Your task to perform on an android device: Open calendar and show me the fourth week of next month Image 0: 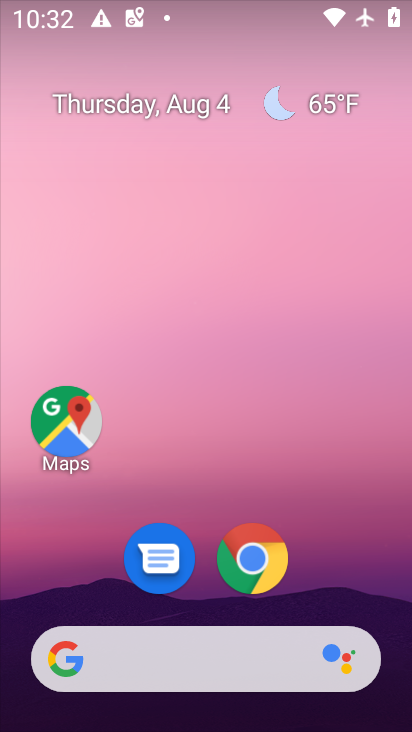
Step 0: drag from (359, 569) to (313, 144)
Your task to perform on an android device: Open calendar and show me the fourth week of next month Image 1: 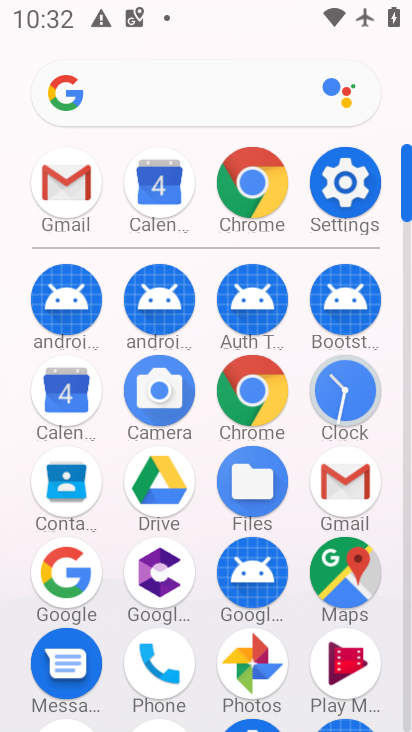
Step 1: click (77, 393)
Your task to perform on an android device: Open calendar and show me the fourth week of next month Image 2: 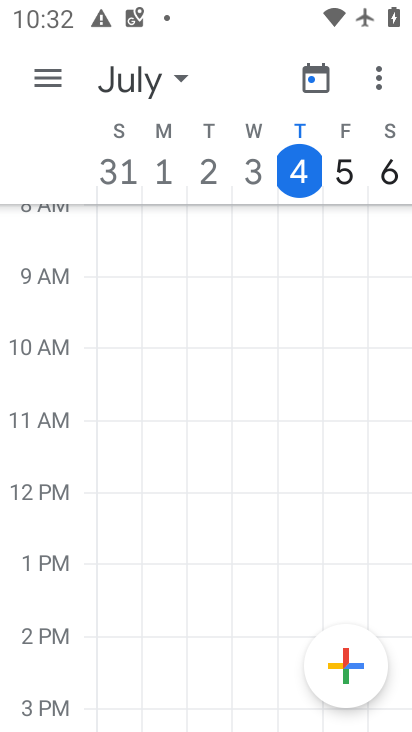
Step 2: click (152, 79)
Your task to perform on an android device: Open calendar and show me the fourth week of next month Image 3: 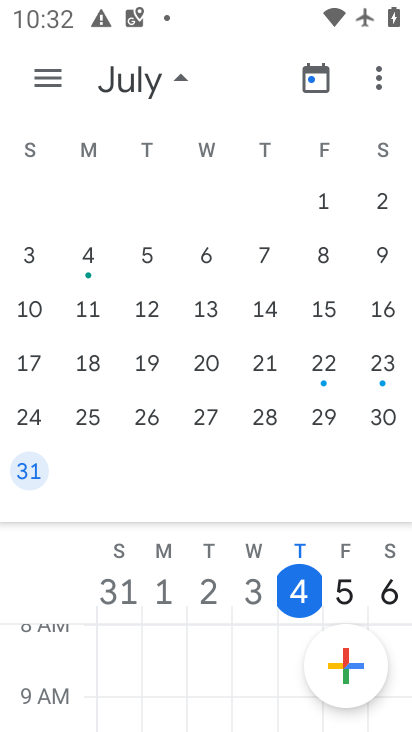
Step 3: drag from (384, 330) to (19, 320)
Your task to perform on an android device: Open calendar and show me the fourth week of next month Image 4: 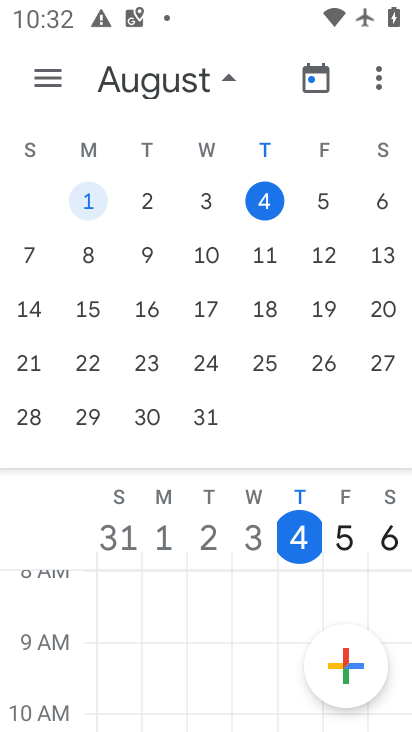
Step 4: drag from (381, 287) to (23, 305)
Your task to perform on an android device: Open calendar and show me the fourth week of next month Image 5: 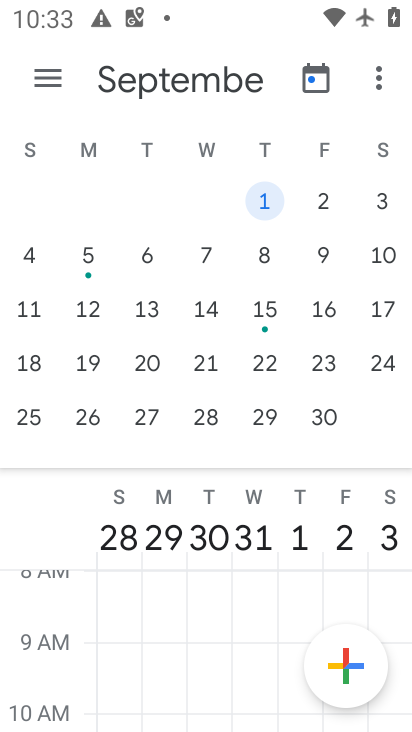
Step 5: drag from (266, 624) to (355, 250)
Your task to perform on an android device: Open calendar and show me the fourth week of next month Image 6: 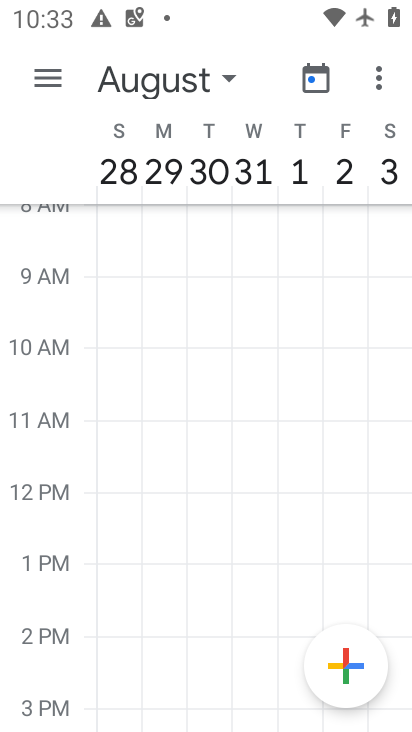
Step 6: click (210, 73)
Your task to perform on an android device: Open calendar and show me the fourth week of next month Image 7: 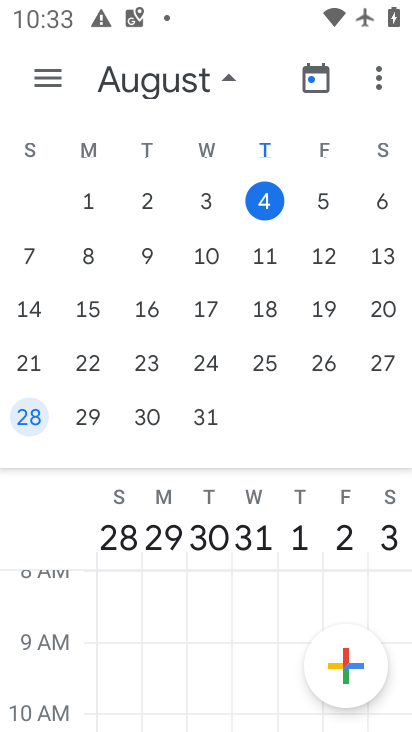
Step 7: drag from (382, 345) to (37, 315)
Your task to perform on an android device: Open calendar and show me the fourth week of next month Image 8: 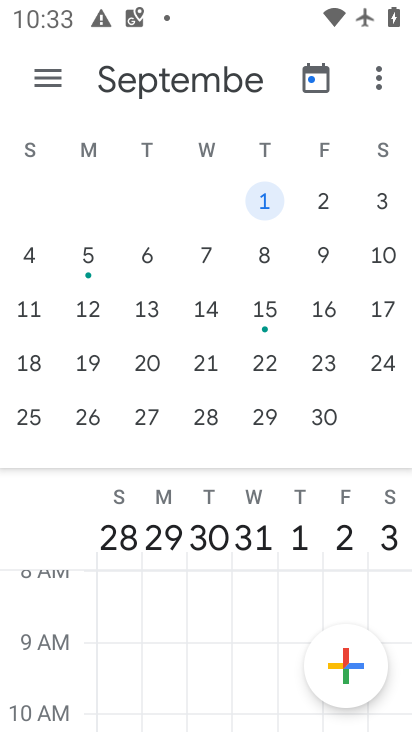
Step 8: click (148, 413)
Your task to perform on an android device: Open calendar and show me the fourth week of next month Image 9: 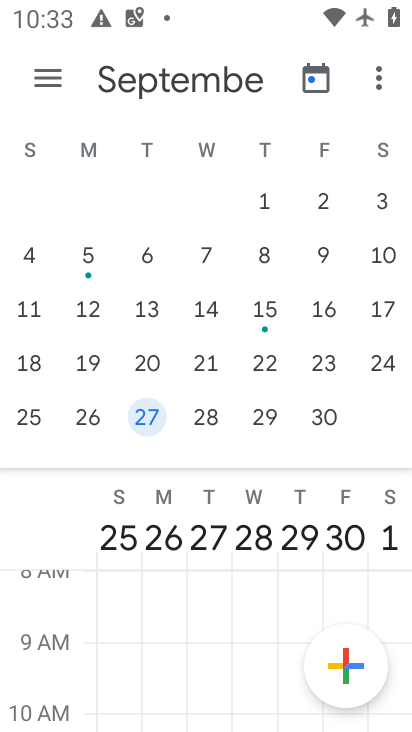
Step 9: task complete